Your task to perform on an android device: Open Youtube and go to "Your channel" Image 0: 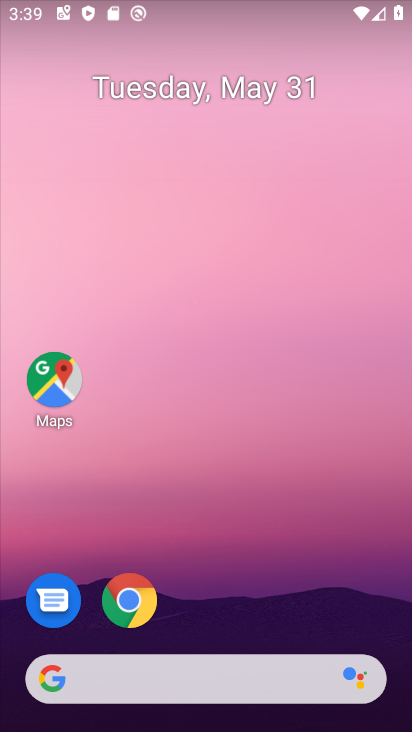
Step 0: drag from (205, 641) to (227, 64)
Your task to perform on an android device: Open Youtube and go to "Your channel" Image 1: 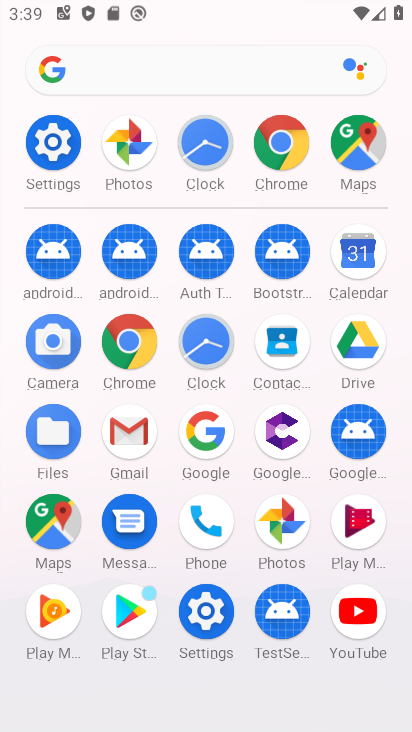
Step 1: click (356, 605)
Your task to perform on an android device: Open Youtube and go to "Your channel" Image 2: 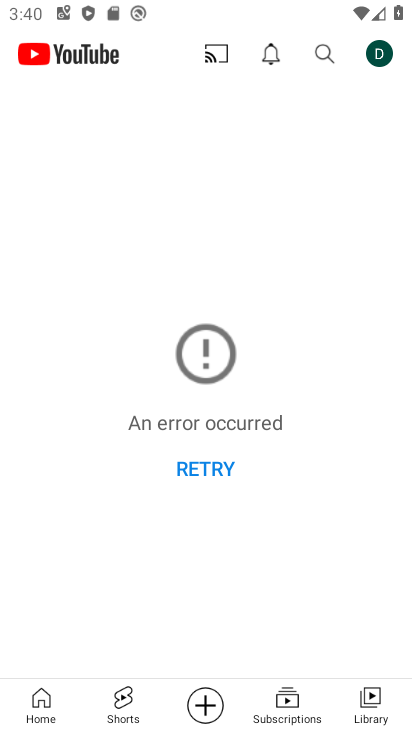
Step 2: click (375, 691)
Your task to perform on an android device: Open Youtube and go to "Your channel" Image 3: 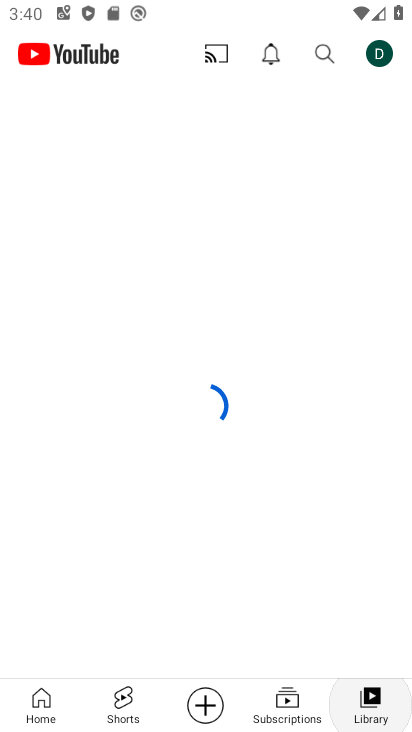
Step 3: click (375, 45)
Your task to perform on an android device: Open Youtube and go to "Your channel" Image 4: 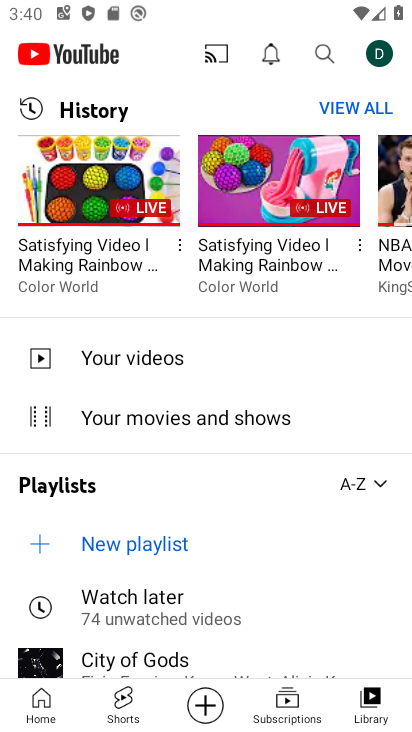
Step 4: click (377, 52)
Your task to perform on an android device: Open Youtube and go to "Your channel" Image 5: 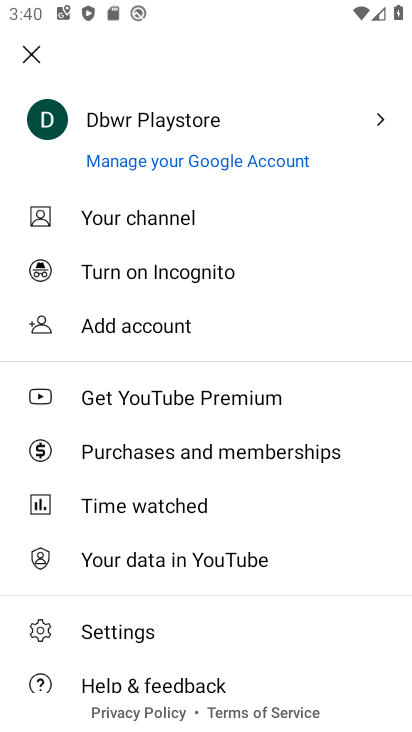
Step 5: click (176, 208)
Your task to perform on an android device: Open Youtube and go to "Your channel" Image 6: 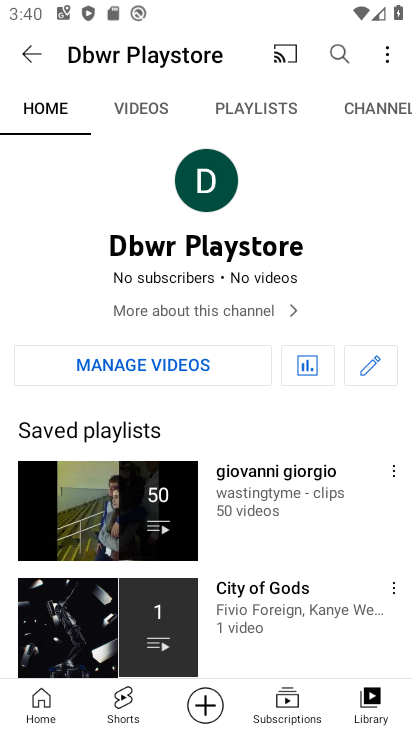
Step 6: task complete